Your task to perform on an android device: toggle location history Image 0: 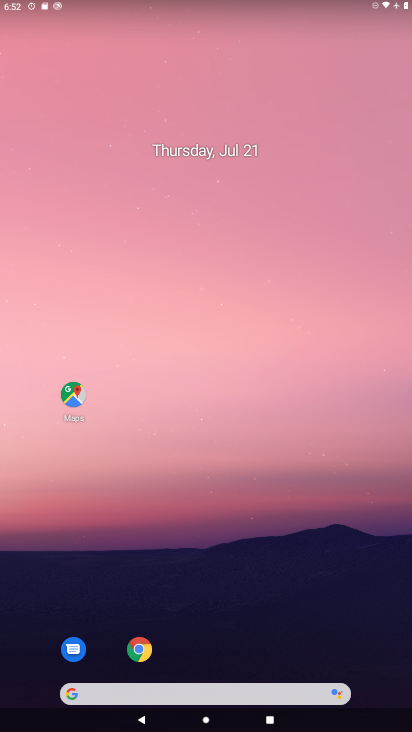
Step 0: drag from (351, 635) to (189, 93)
Your task to perform on an android device: toggle location history Image 1: 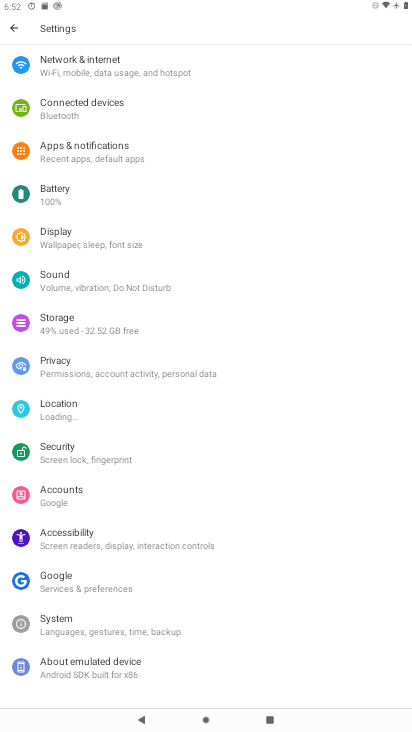
Step 1: press home button
Your task to perform on an android device: toggle location history Image 2: 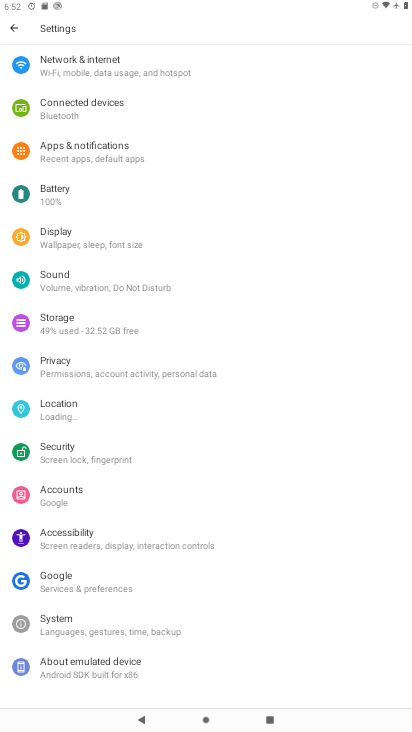
Step 2: drag from (346, 630) to (194, 39)
Your task to perform on an android device: toggle location history Image 3: 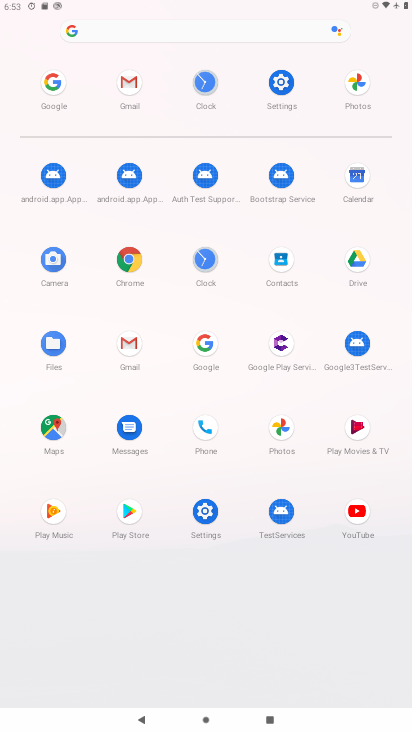
Step 3: click (203, 521)
Your task to perform on an android device: toggle location history Image 4: 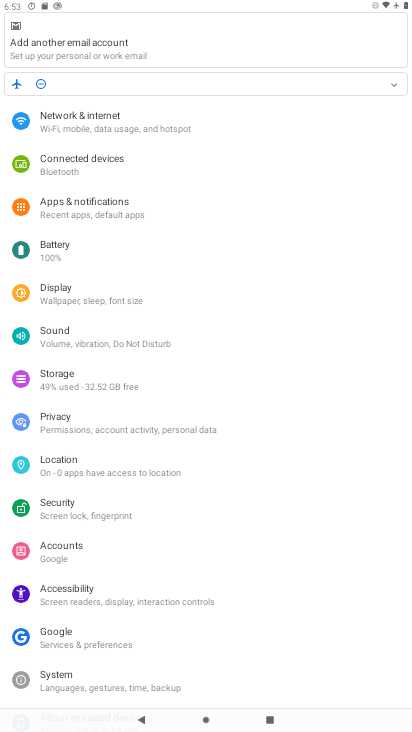
Step 4: click (78, 461)
Your task to perform on an android device: toggle location history Image 5: 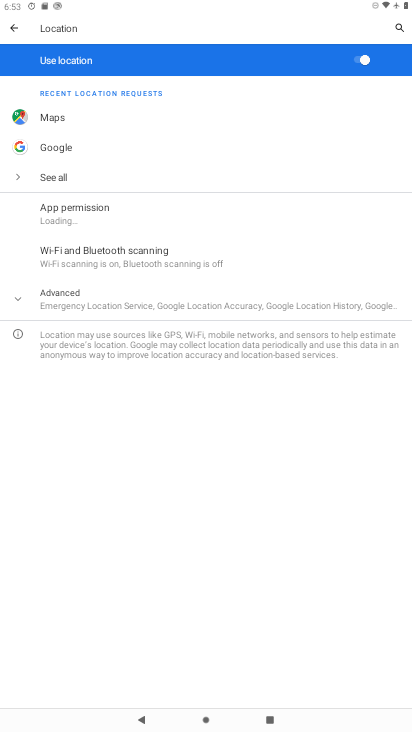
Step 5: click (104, 304)
Your task to perform on an android device: toggle location history Image 6: 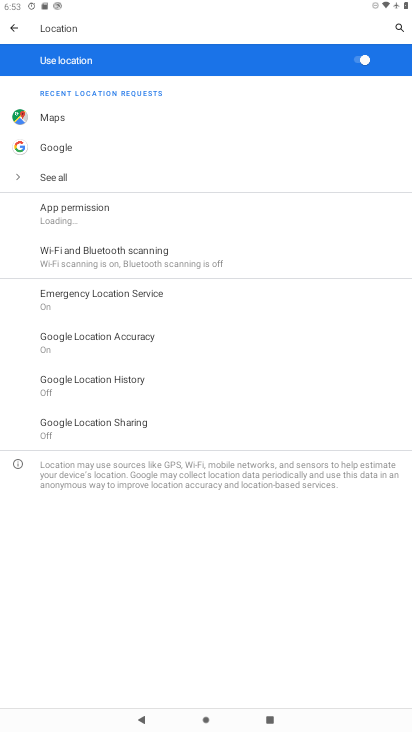
Step 6: click (117, 382)
Your task to perform on an android device: toggle location history Image 7: 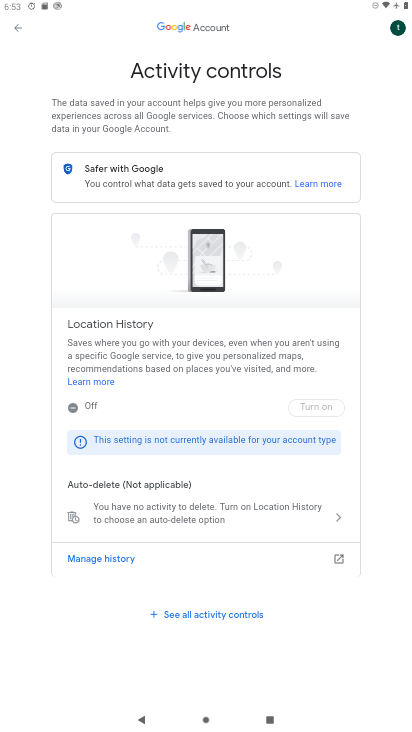
Step 7: click (324, 413)
Your task to perform on an android device: toggle location history Image 8: 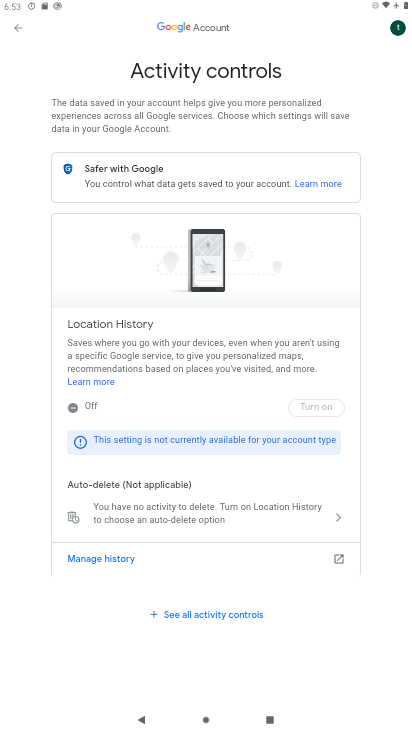
Step 8: click (325, 412)
Your task to perform on an android device: toggle location history Image 9: 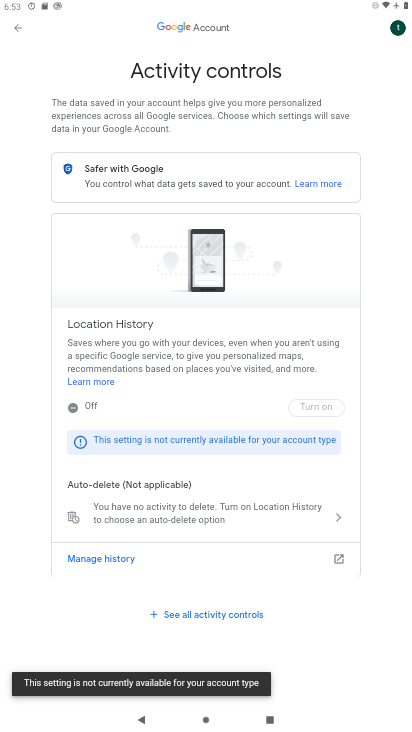
Step 9: task complete